Your task to perform on an android device: Open internet settings Image 0: 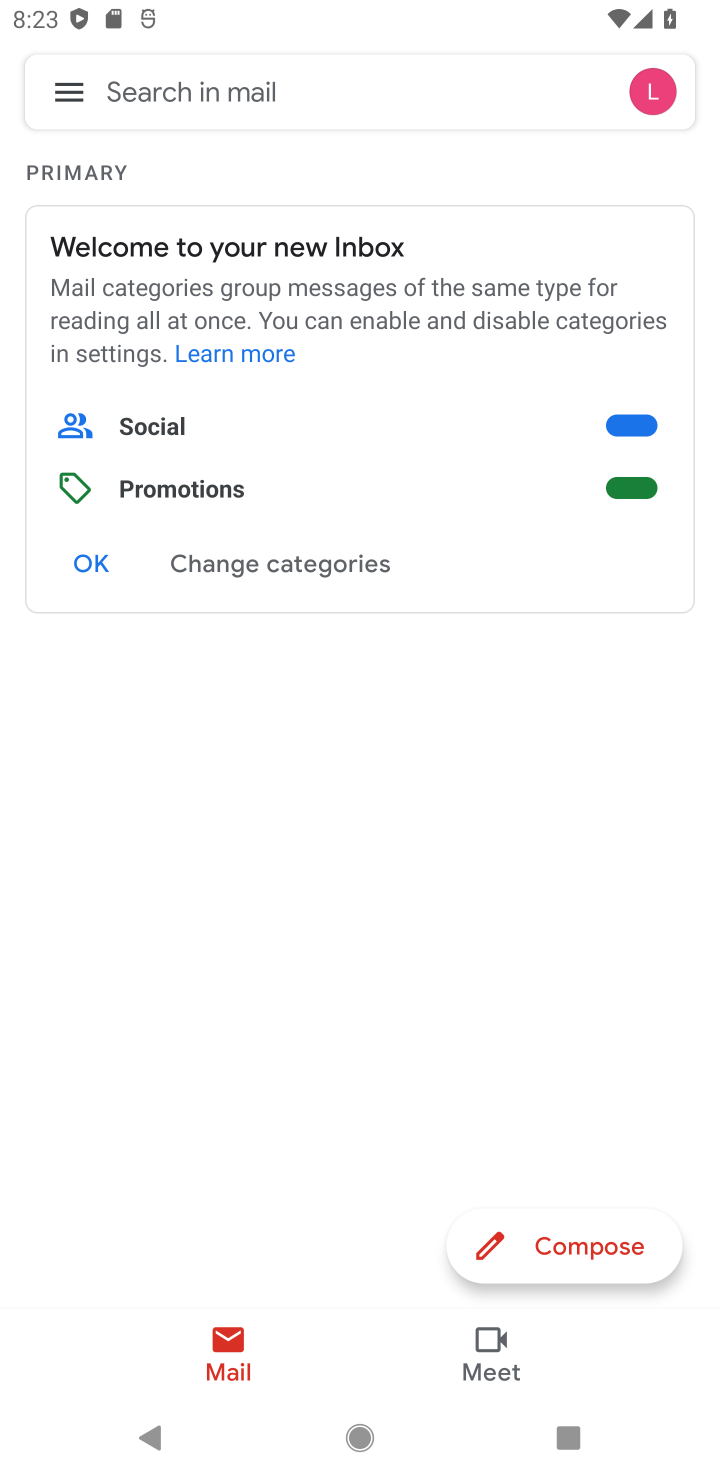
Step 0: press home button
Your task to perform on an android device: Open internet settings Image 1: 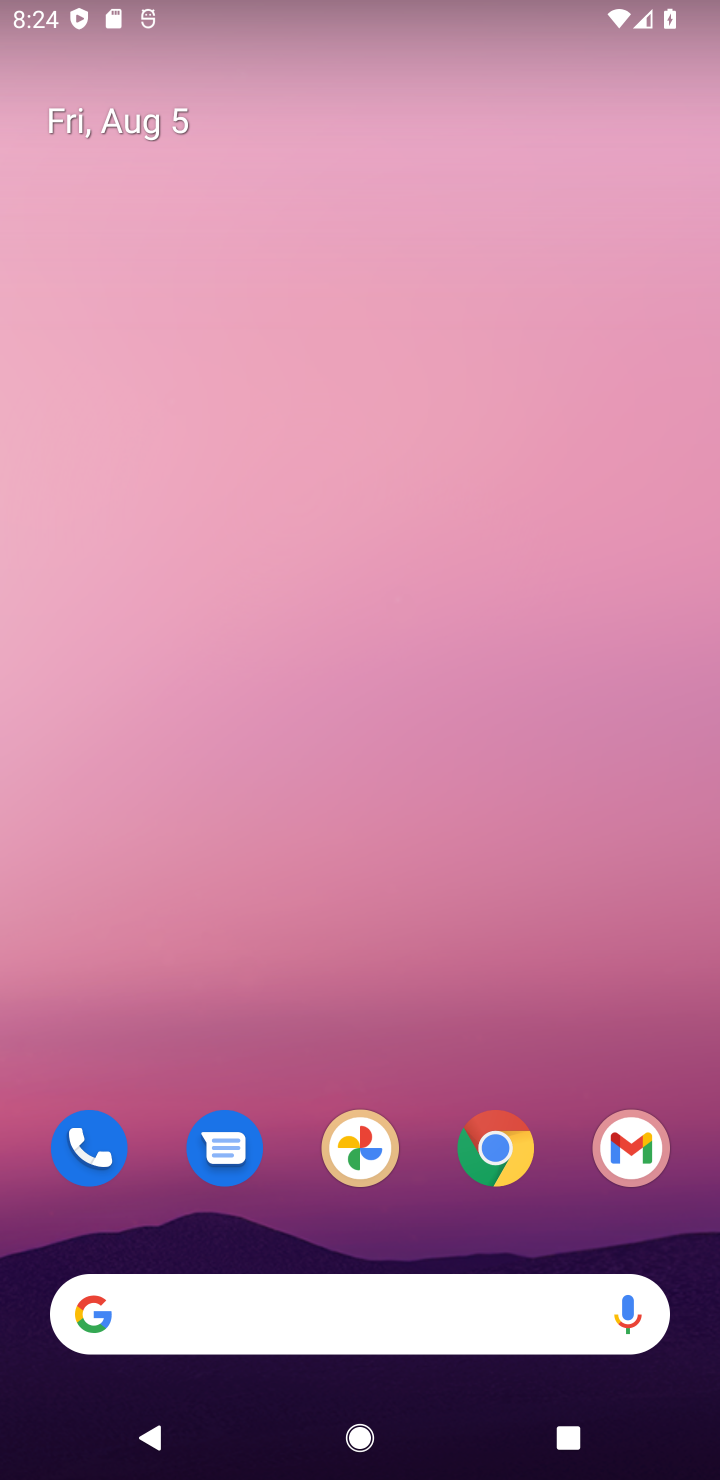
Step 1: drag from (354, 506) to (413, 185)
Your task to perform on an android device: Open internet settings Image 2: 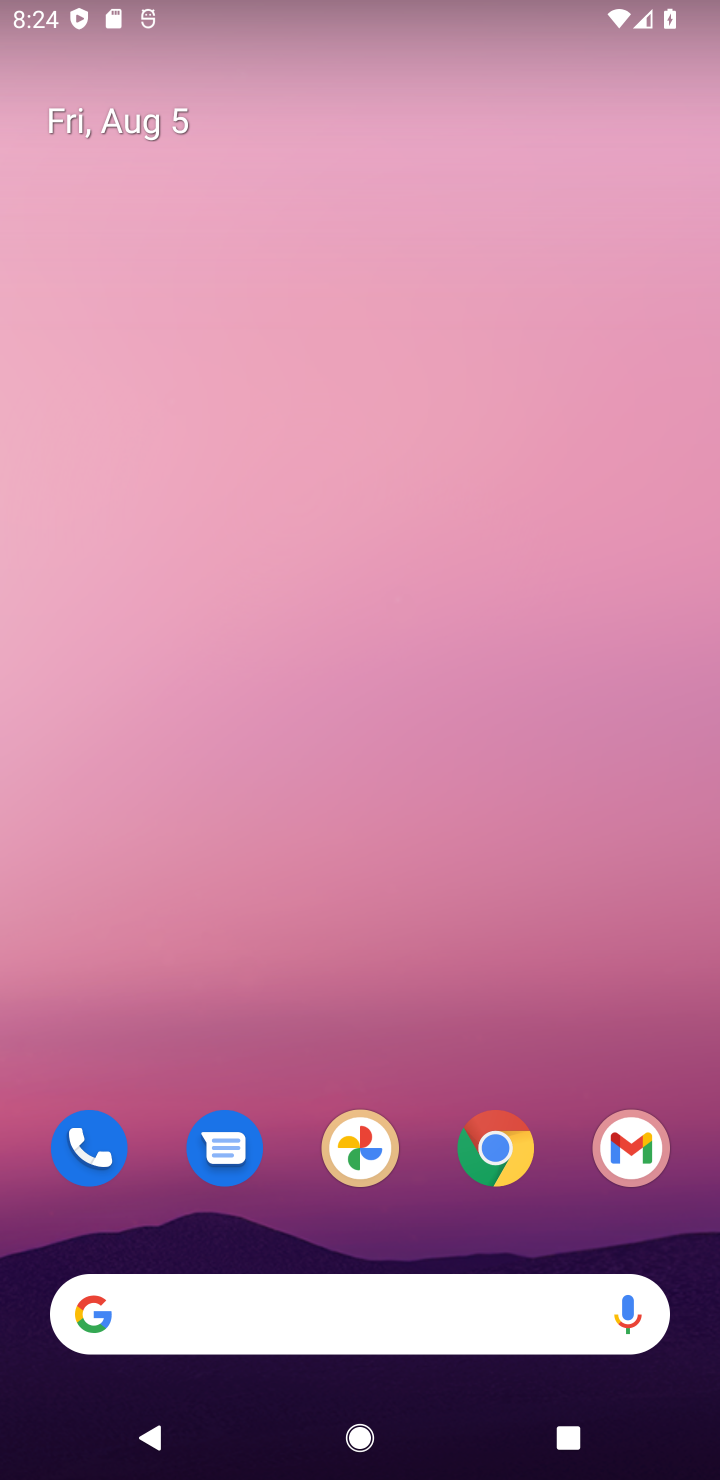
Step 2: drag from (285, 1222) to (375, 70)
Your task to perform on an android device: Open internet settings Image 3: 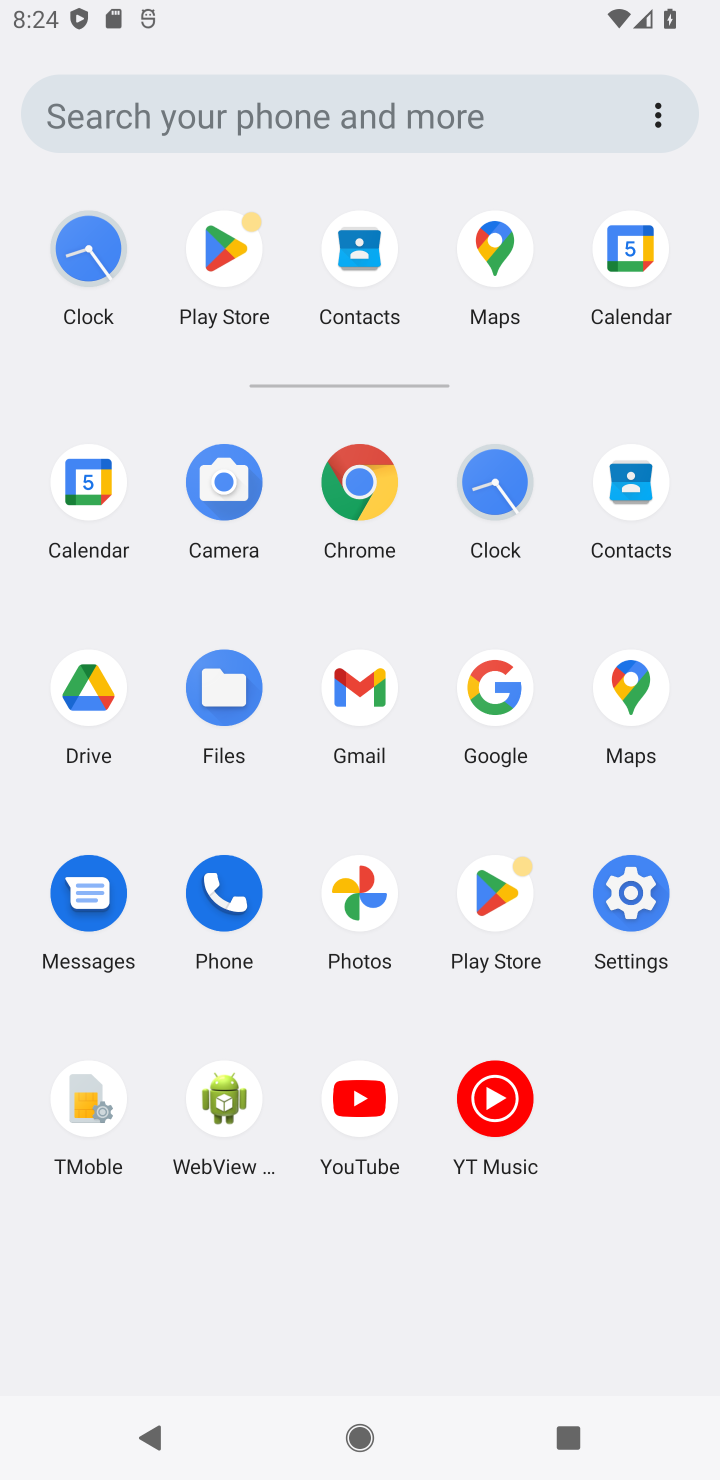
Step 3: click (635, 893)
Your task to perform on an android device: Open internet settings Image 4: 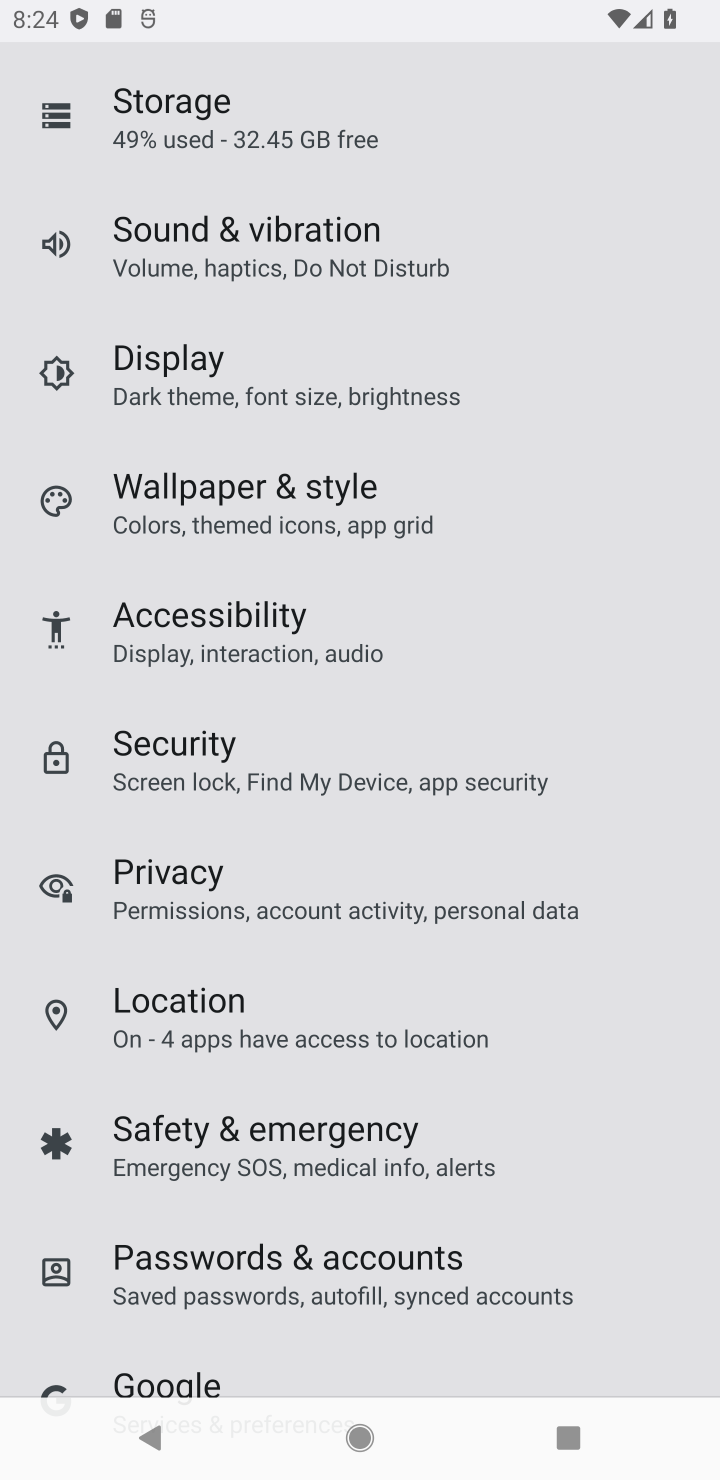
Step 4: task complete